Your task to perform on an android device: set an alarm Image 0: 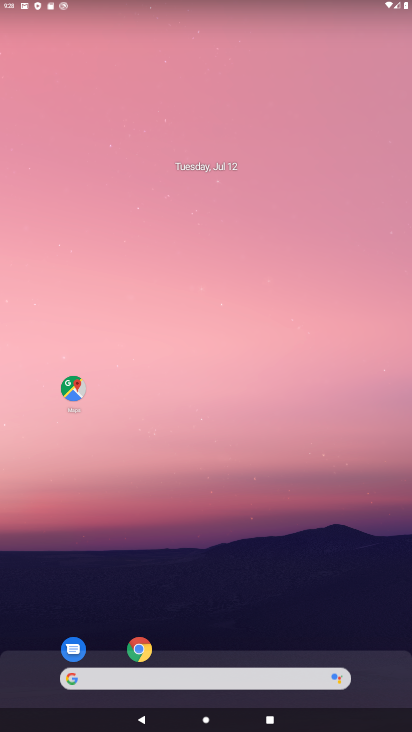
Step 0: drag from (210, 658) to (260, 192)
Your task to perform on an android device: set an alarm Image 1: 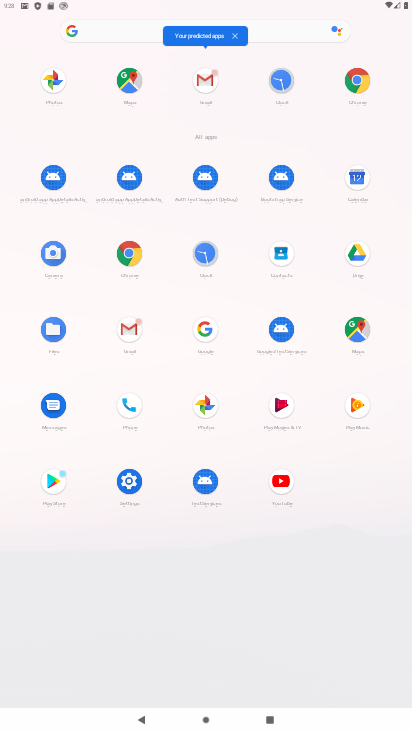
Step 1: click (206, 244)
Your task to perform on an android device: set an alarm Image 2: 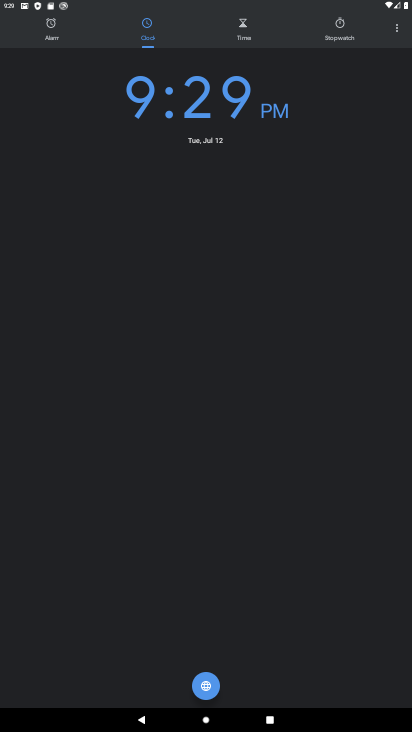
Step 2: click (57, 23)
Your task to perform on an android device: set an alarm Image 3: 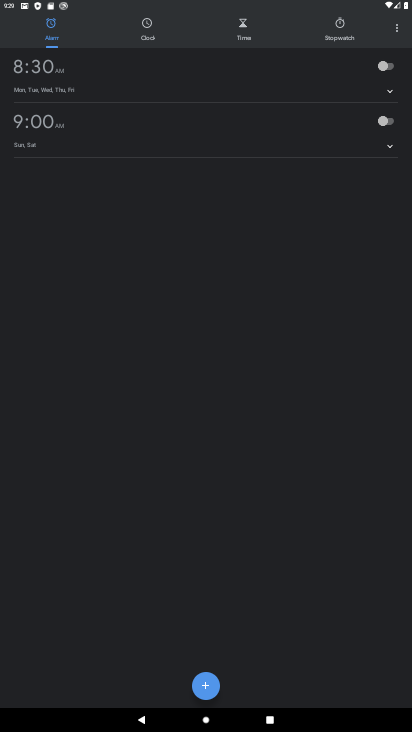
Step 3: click (388, 121)
Your task to perform on an android device: set an alarm Image 4: 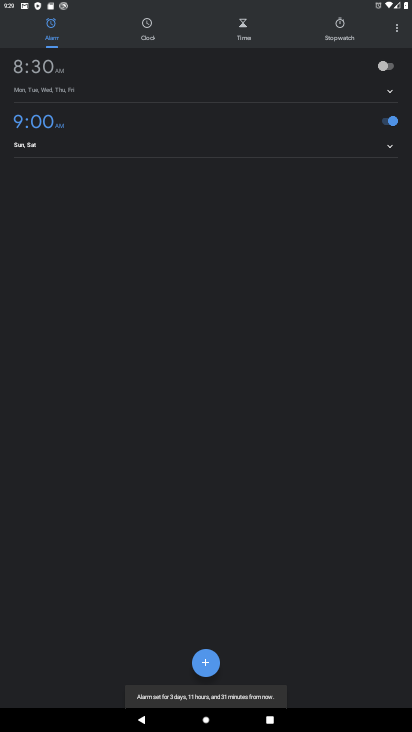
Step 4: task complete